Your task to perform on an android device: change keyboard looks Image 0: 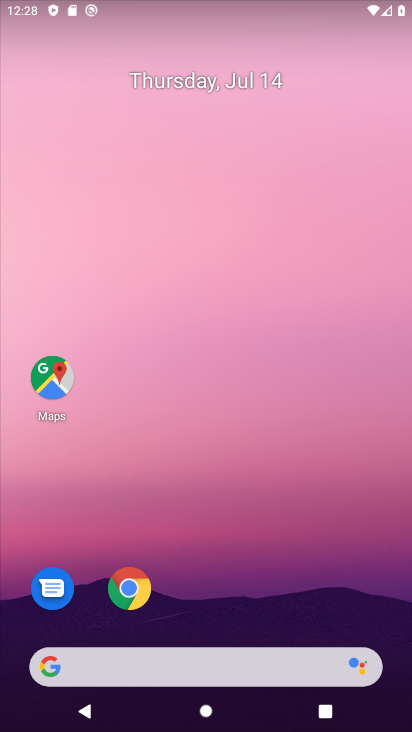
Step 0: drag from (182, 653) to (316, 73)
Your task to perform on an android device: change keyboard looks Image 1: 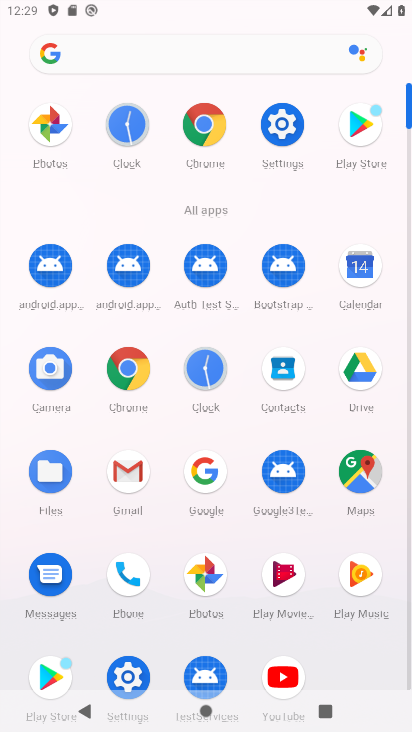
Step 1: click (288, 122)
Your task to perform on an android device: change keyboard looks Image 2: 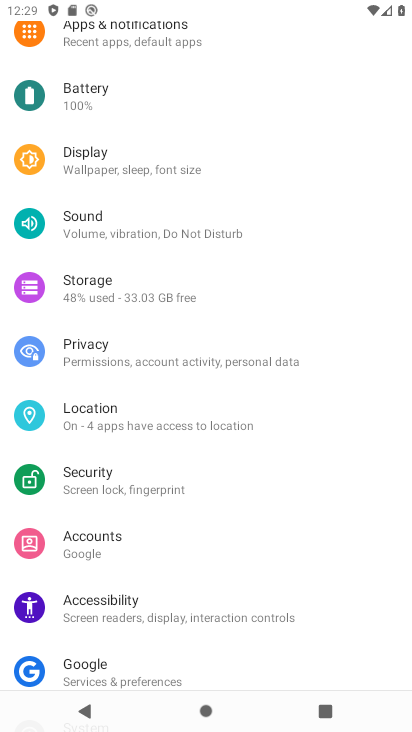
Step 2: drag from (226, 582) to (295, 260)
Your task to perform on an android device: change keyboard looks Image 3: 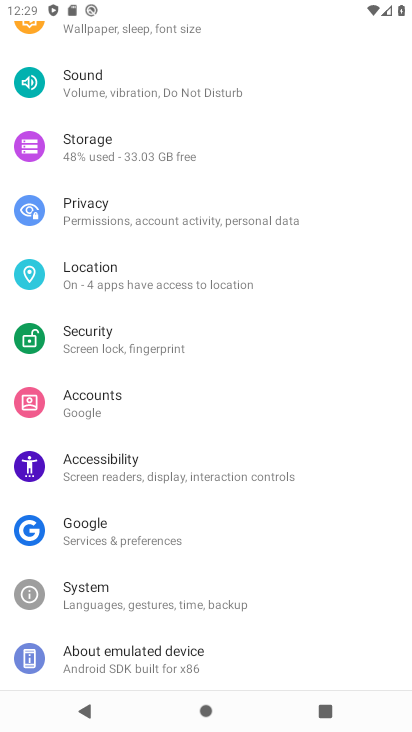
Step 3: click (148, 599)
Your task to perform on an android device: change keyboard looks Image 4: 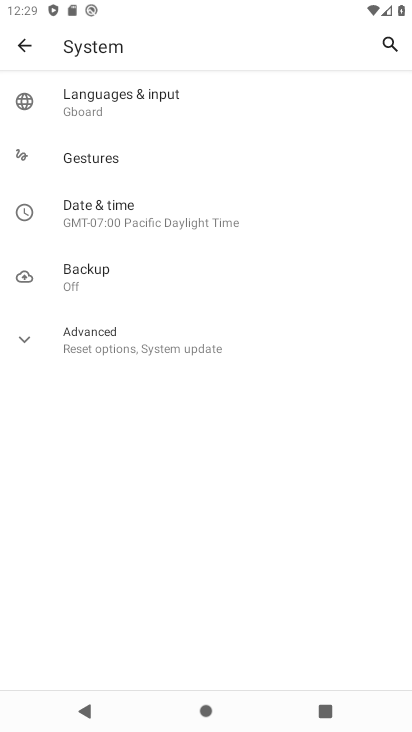
Step 4: click (97, 107)
Your task to perform on an android device: change keyboard looks Image 5: 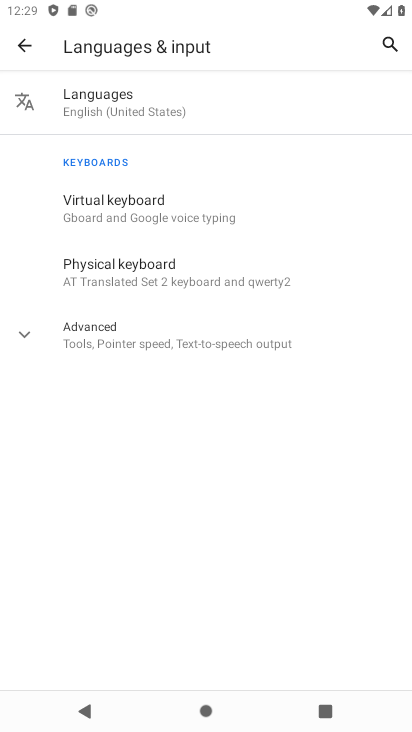
Step 5: click (126, 201)
Your task to perform on an android device: change keyboard looks Image 6: 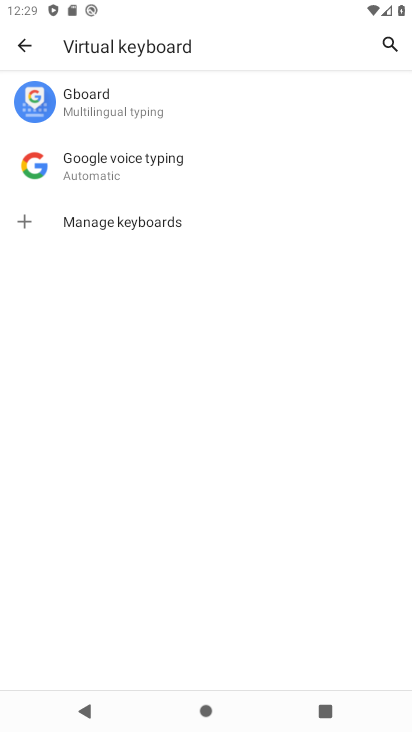
Step 6: click (77, 106)
Your task to perform on an android device: change keyboard looks Image 7: 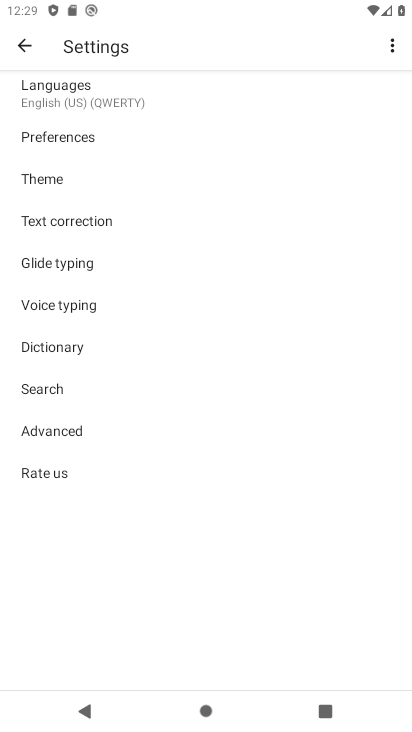
Step 7: click (41, 182)
Your task to perform on an android device: change keyboard looks Image 8: 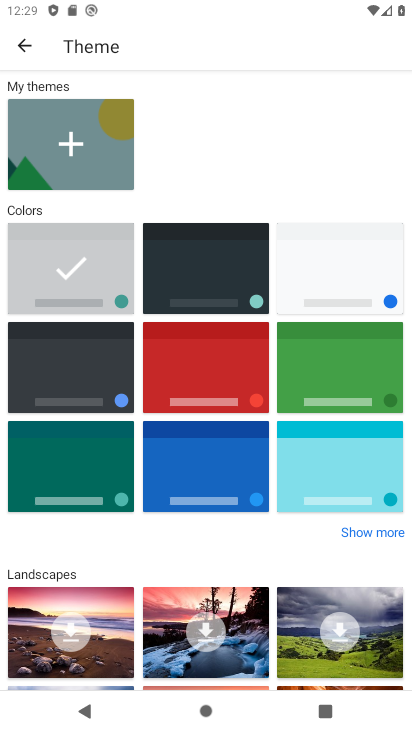
Step 8: click (332, 378)
Your task to perform on an android device: change keyboard looks Image 9: 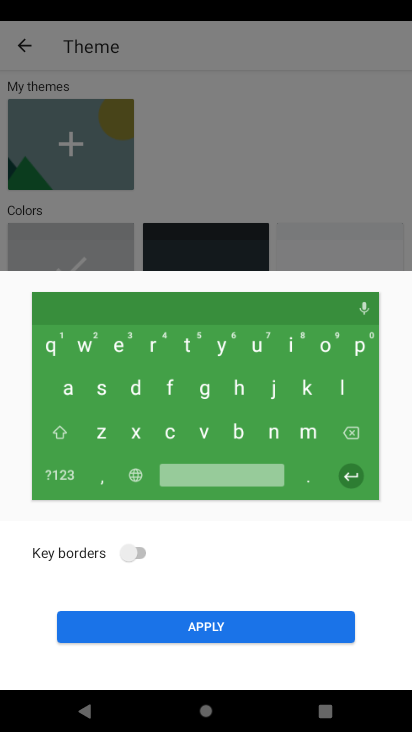
Step 9: click (230, 623)
Your task to perform on an android device: change keyboard looks Image 10: 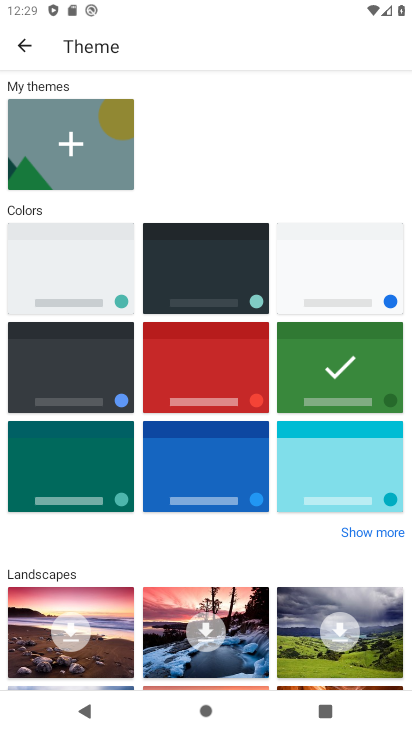
Step 10: task complete